Your task to perform on an android device: turn on wifi Image 0: 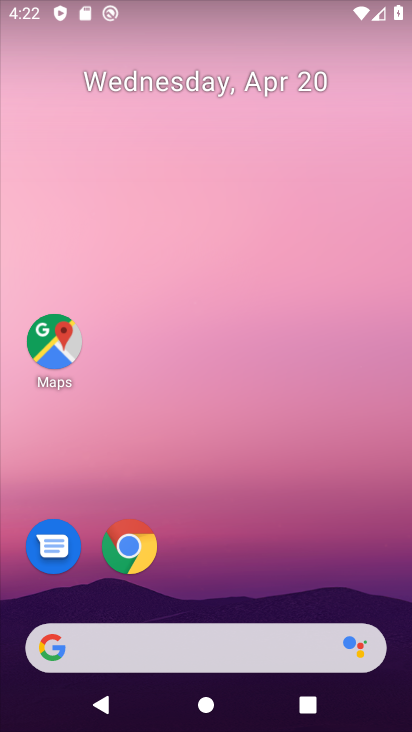
Step 0: drag from (199, 382) to (199, 119)
Your task to perform on an android device: turn on wifi Image 1: 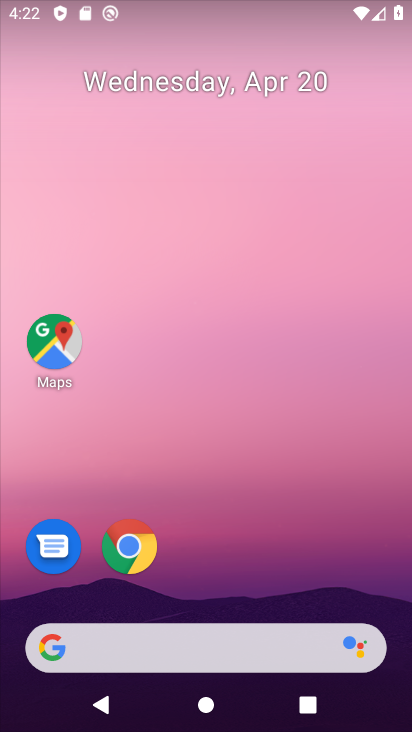
Step 1: drag from (297, 578) to (288, 179)
Your task to perform on an android device: turn on wifi Image 2: 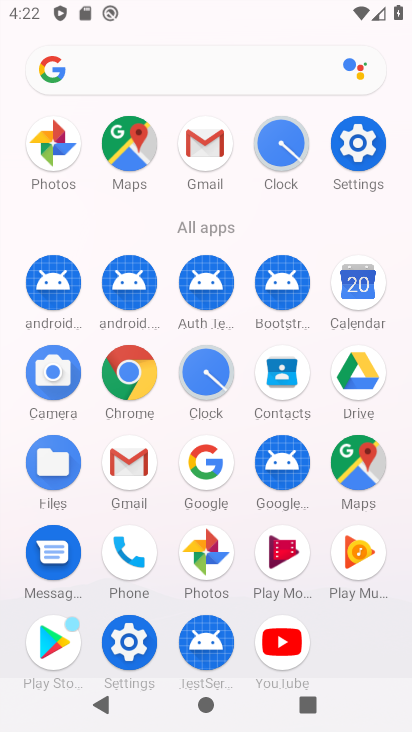
Step 2: click (361, 148)
Your task to perform on an android device: turn on wifi Image 3: 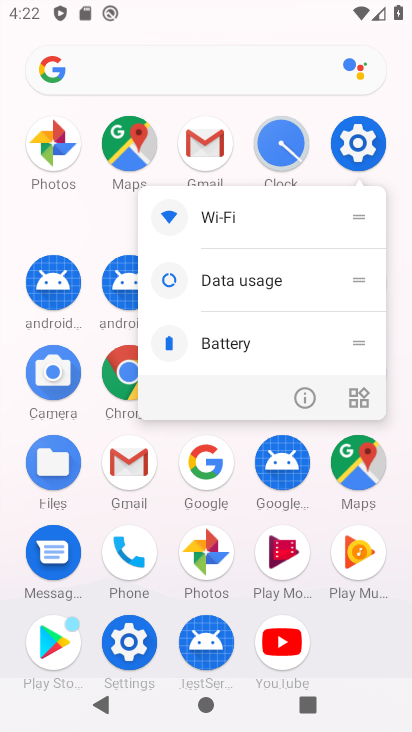
Step 3: click (334, 151)
Your task to perform on an android device: turn on wifi Image 4: 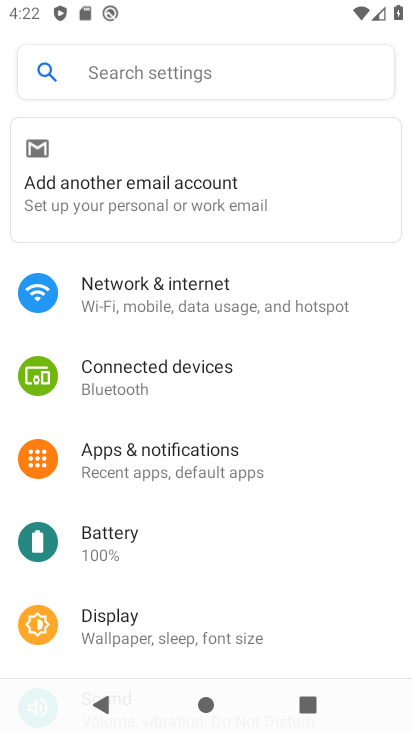
Step 4: click (182, 296)
Your task to perform on an android device: turn on wifi Image 5: 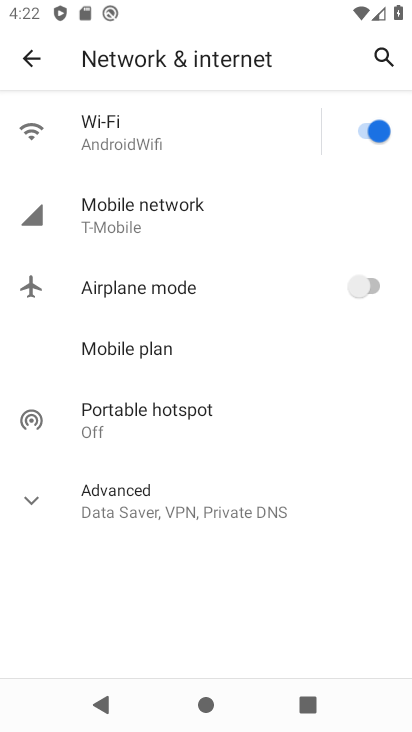
Step 5: task complete